Your task to perform on an android device: check out phone information Image 0: 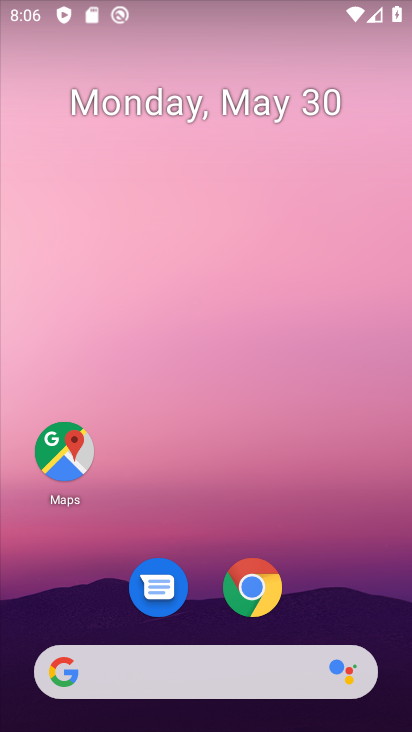
Step 0: drag from (204, 374) to (236, 41)
Your task to perform on an android device: check out phone information Image 1: 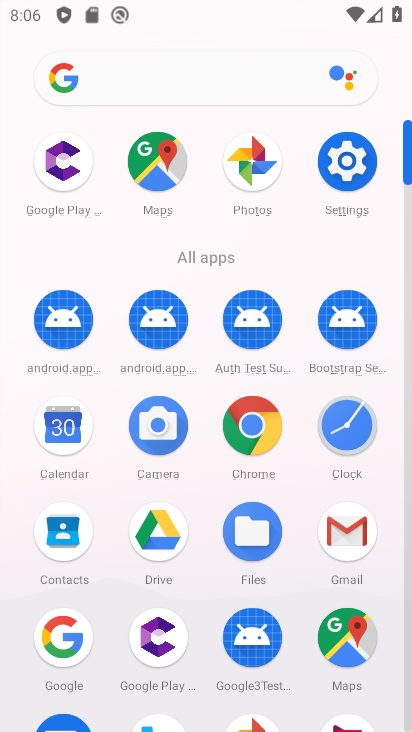
Step 1: click (359, 148)
Your task to perform on an android device: check out phone information Image 2: 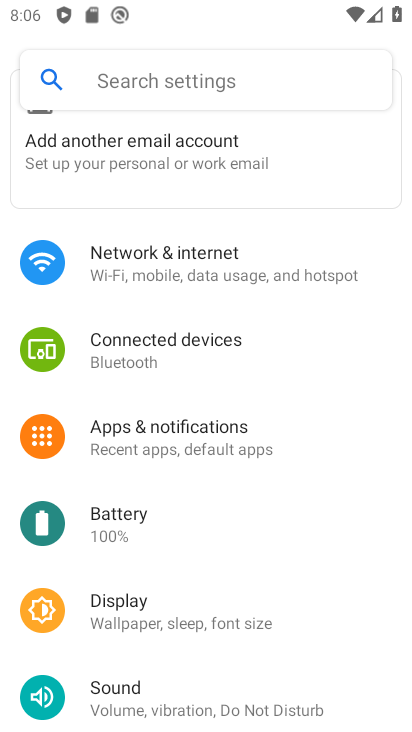
Step 2: drag from (159, 658) to (205, 89)
Your task to perform on an android device: check out phone information Image 3: 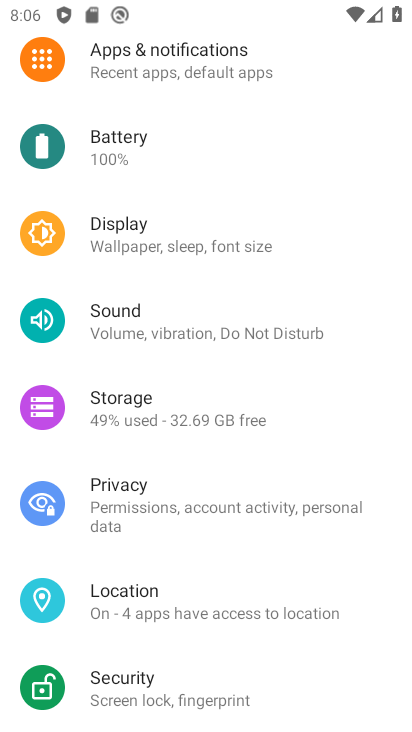
Step 3: drag from (150, 620) to (212, 203)
Your task to perform on an android device: check out phone information Image 4: 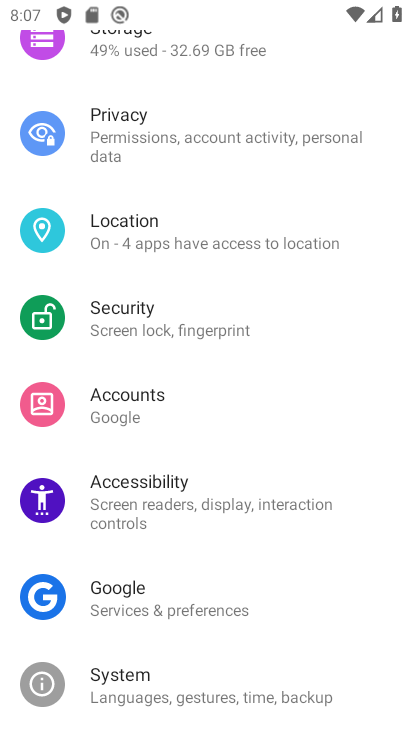
Step 4: drag from (188, 685) to (212, 273)
Your task to perform on an android device: check out phone information Image 5: 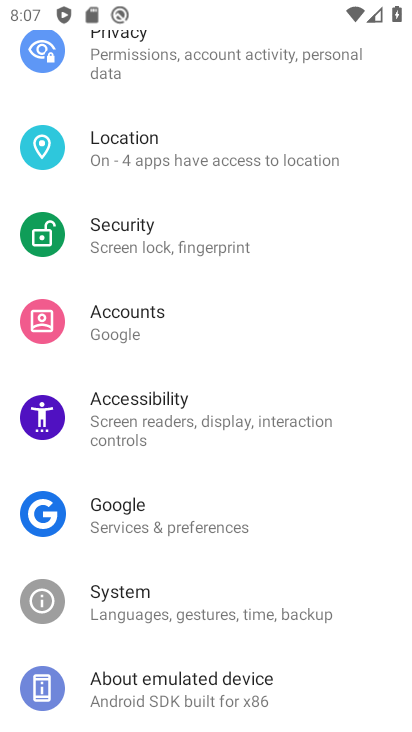
Step 5: click (179, 702)
Your task to perform on an android device: check out phone information Image 6: 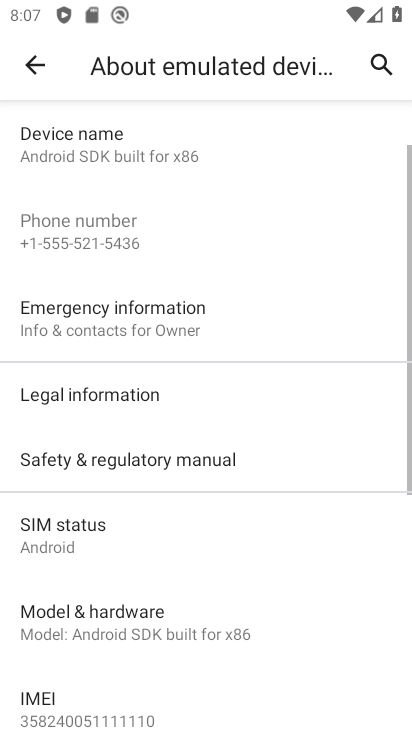
Step 6: task complete